Your task to perform on an android device: turn smart compose on in the gmail app Image 0: 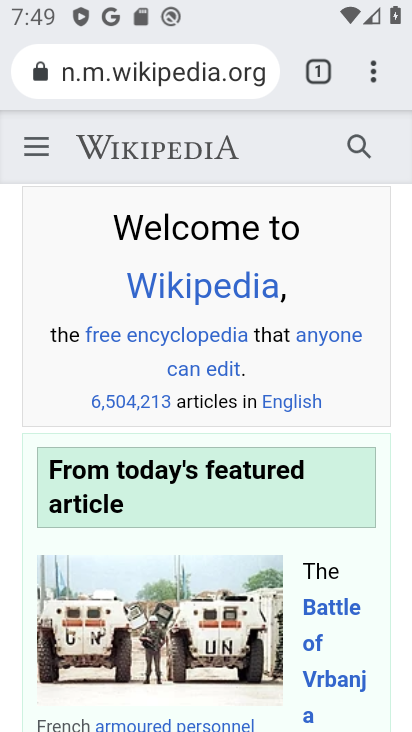
Step 0: press home button
Your task to perform on an android device: turn smart compose on in the gmail app Image 1: 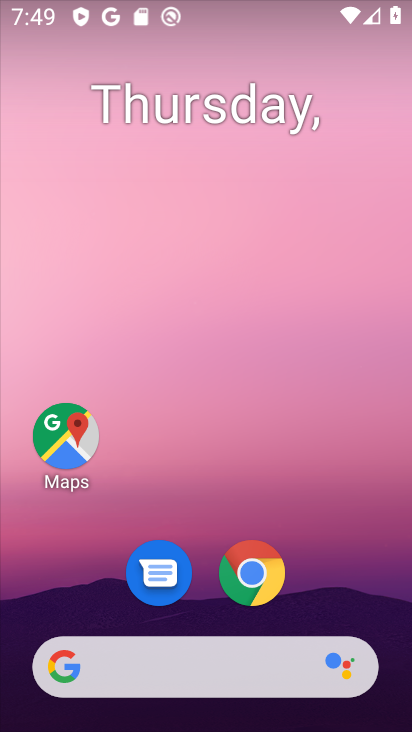
Step 1: drag from (356, 585) to (349, 188)
Your task to perform on an android device: turn smart compose on in the gmail app Image 2: 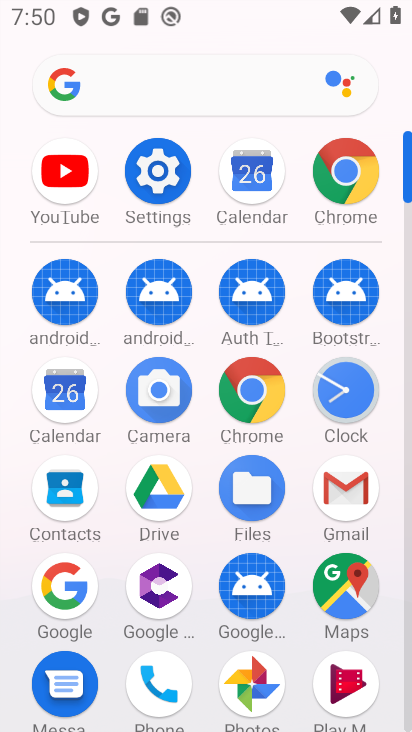
Step 2: drag from (274, 641) to (266, 310)
Your task to perform on an android device: turn smart compose on in the gmail app Image 3: 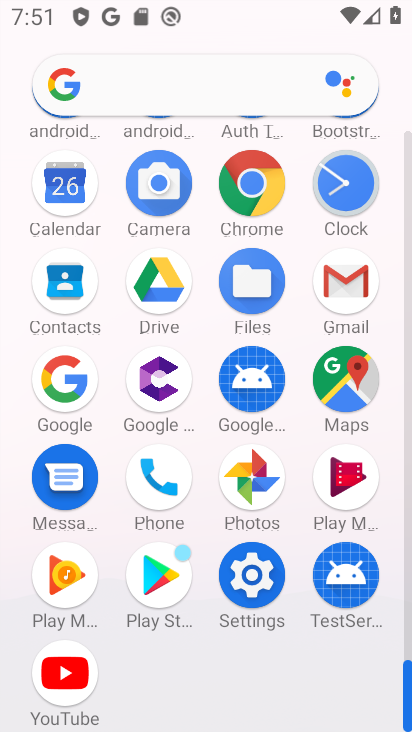
Step 3: click (367, 274)
Your task to perform on an android device: turn smart compose on in the gmail app Image 4: 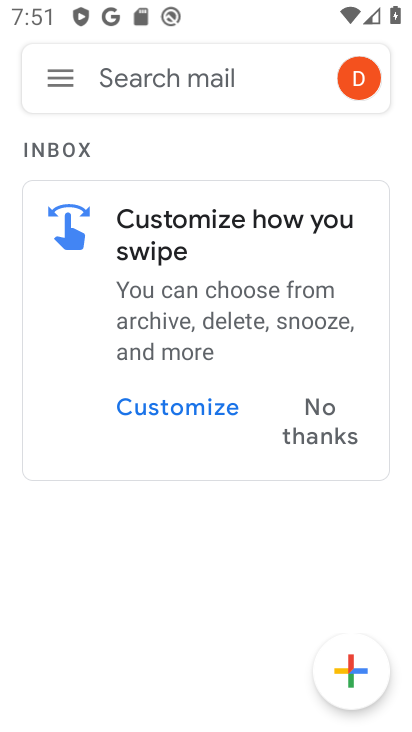
Step 4: click (49, 85)
Your task to perform on an android device: turn smart compose on in the gmail app Image 5: 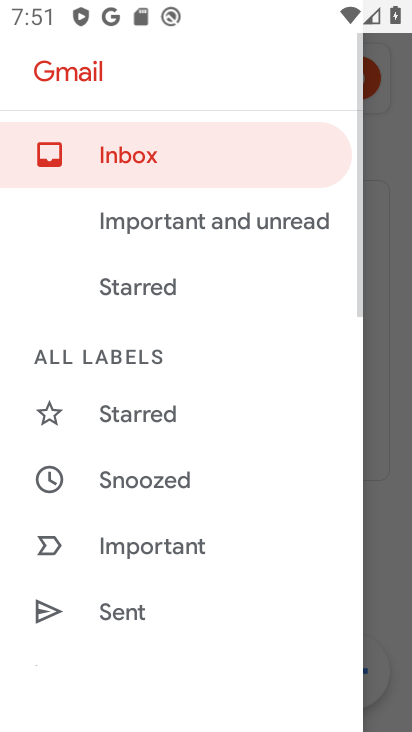
Step 5: drag from (184, 651) to (203, 214)
Your task to perform on an android device: turn smart compose on in the gmail app Image 6: 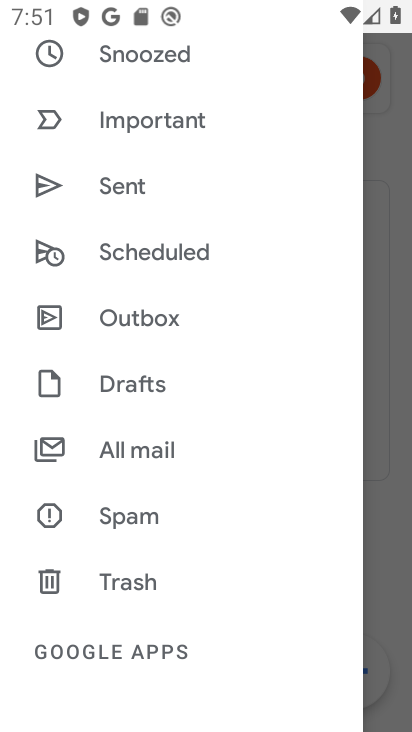
Step 6: drag from (205, 577) to (218, 251)
Your task to perform on an android device: turn smart compose on in the gmail app Image 7: 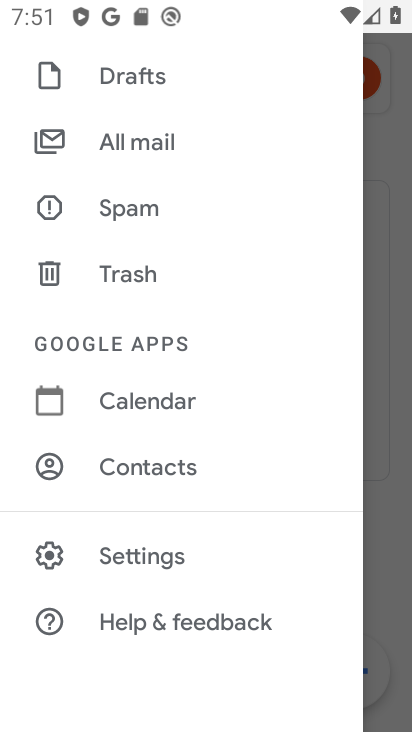
Step 7: click (166, 545)
Your task to perform on an android device: turn smart compose on in the gmail app Image 8: 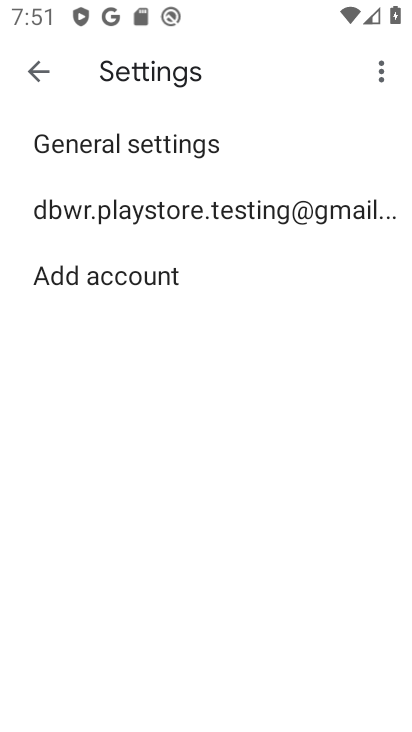
Step 8: click (287, 232)
Your task to perform on an android device: turn smart compose on in the gmail app Image 9: 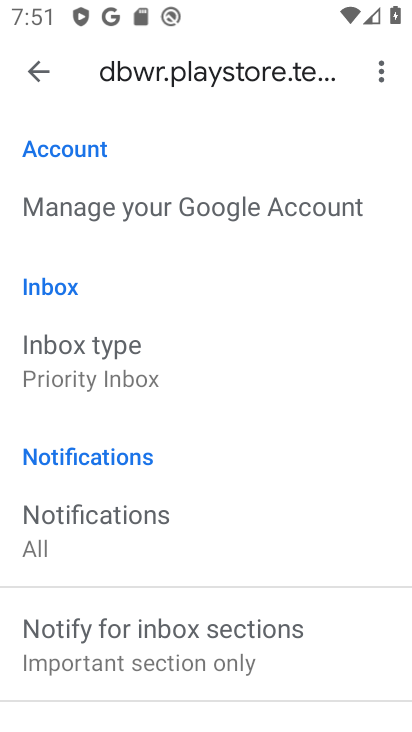
Step 9: task complete